Your task to perform on an android device: Open Yahoo.com Image 0: 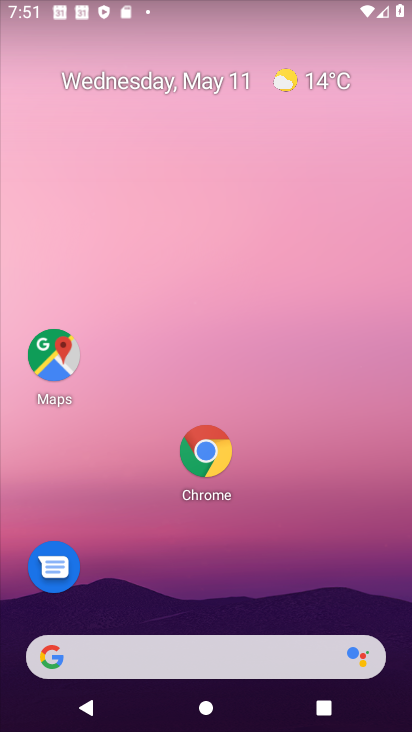
Step 0: drag from (174, 658) to (270, 158)
Your task to perform on an android device: Open Yahoo.com Image 1: 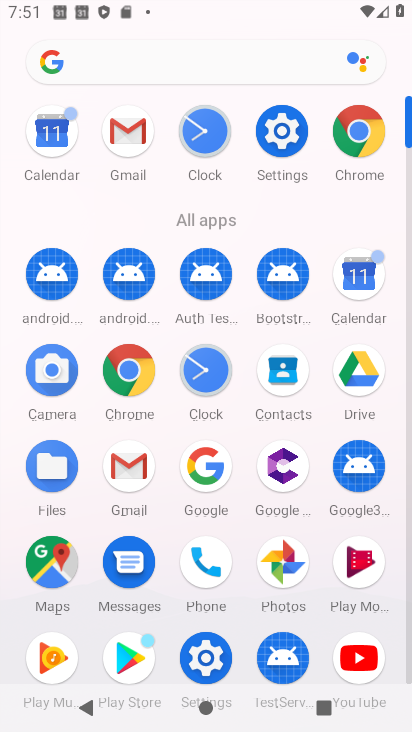
Step 1: click (346, 138)
Your task to perform on an android device: Open Yahoo.com Image 2: 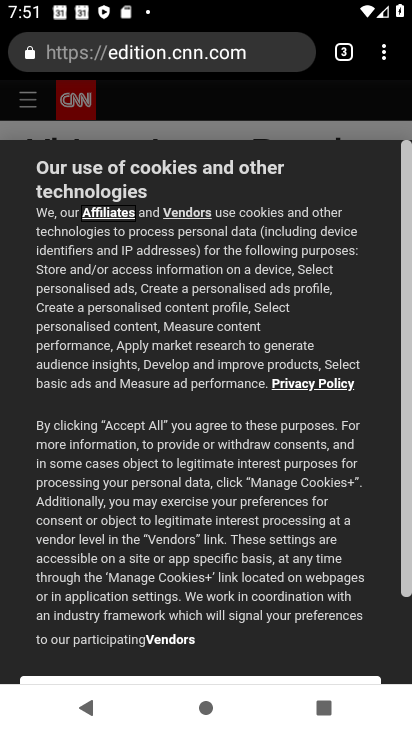
Step 2: drag from (383, 57) to (351, 105)
Your task to perform on an android device: Open Yahoo.com Image 3: 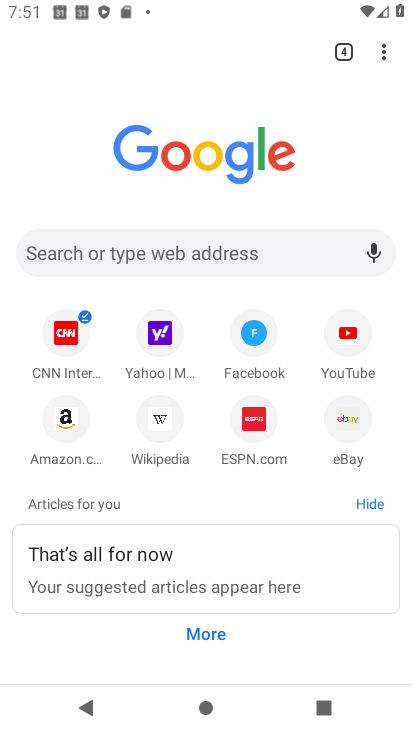
Step 3: click (151, 328)
Your task to perform on an android device: Open Yahoo.com Image 4: 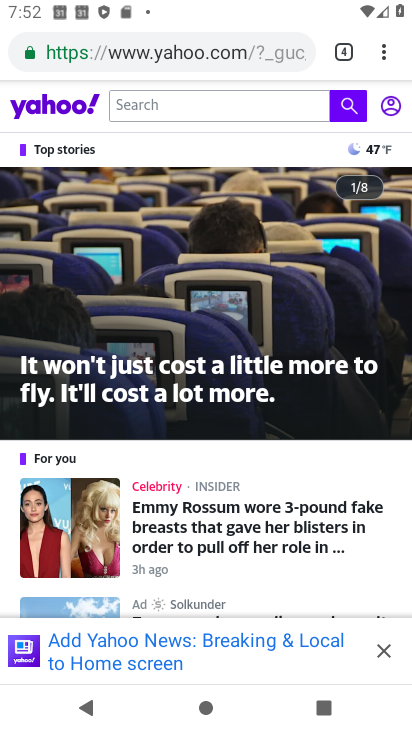
Step 4: task complete